Your task to perform on an android device: Open sound settings Image 0: 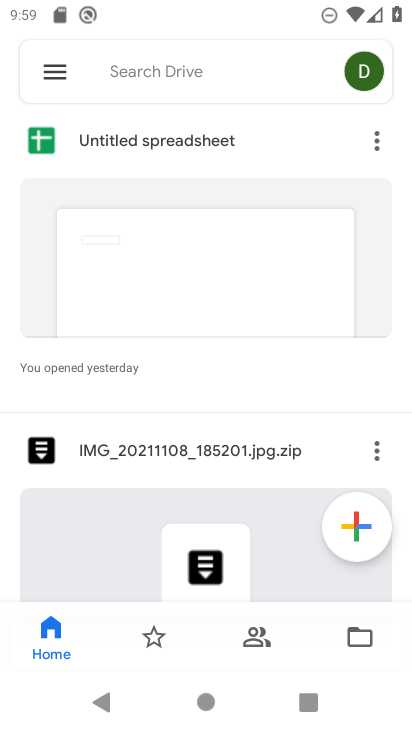
Step 0: press home button
Your task to perform on an android device: Open sound settings Image 1: 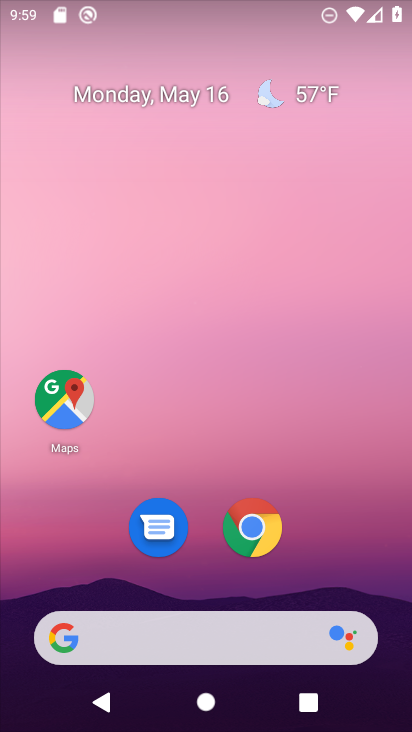
Step 1: click (361, 285)
Your task to perform on an android device: Open sound settings Image 2: 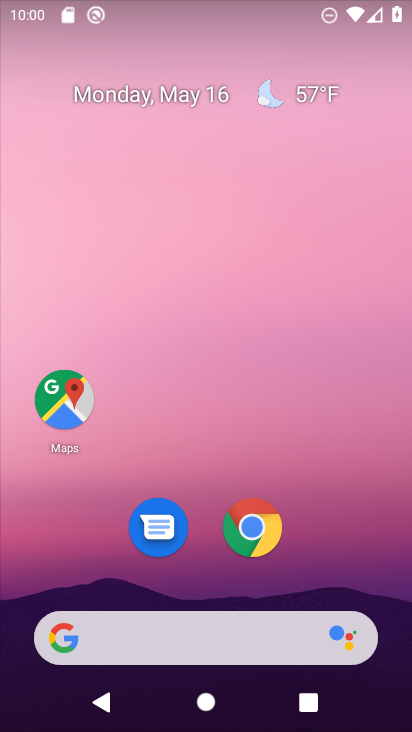
Step 2: drag from (407, 601) to (399, 634)
Your task to perform on an android device: Open sound settings Image 3: 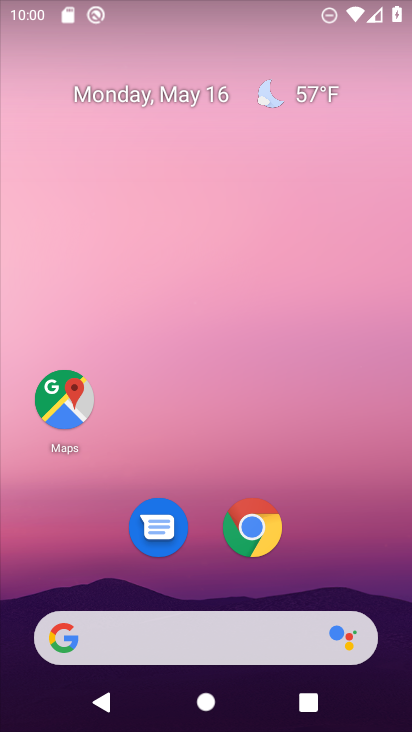
Step 3: drag from (395, 628) to (398, 313)
Your task to perform on an android device: Open sound settings Image 4: 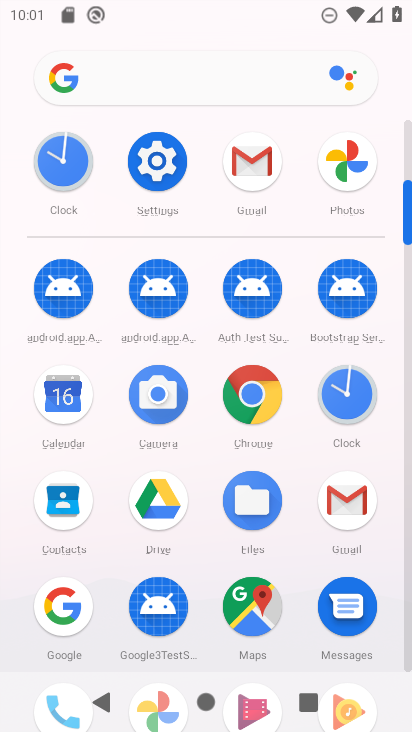
Step 4: click (157, 146)
Your task to perform on an android device: Open sound settings Image 5: 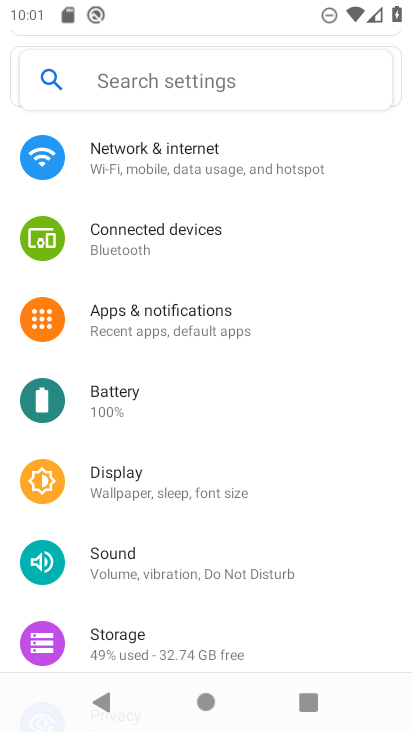
Step 5: click (132, 568)
Your task to perform on an android device: Open sound settings Image 6: 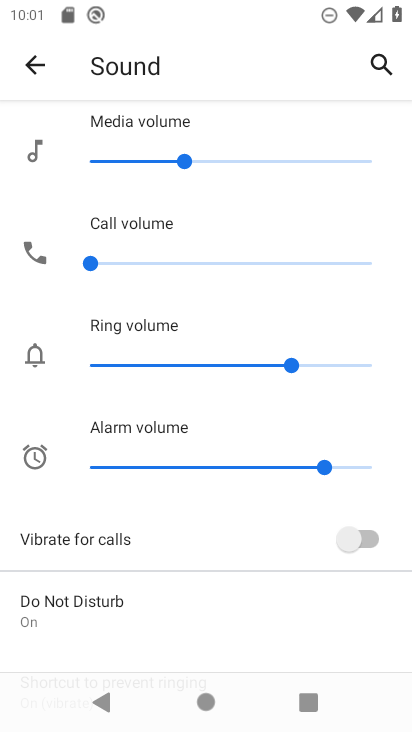
Step 6: task complete